Your task to perform on an android device: toggle pop-ups in chrome Image 0: 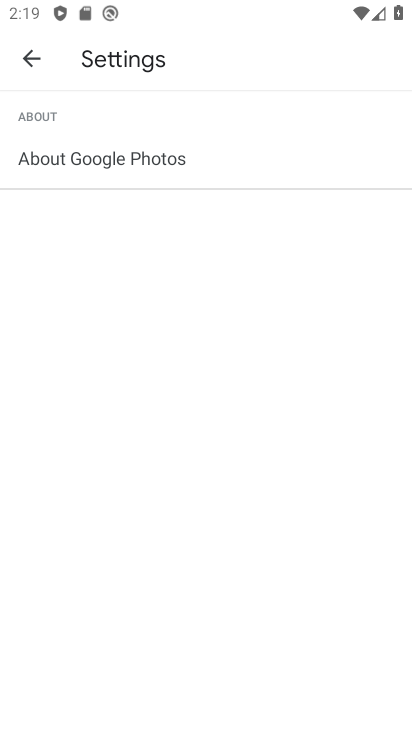
Step 0: press home button
Your task to perform on an android device: toggle pop-ups in chrome Image 1: 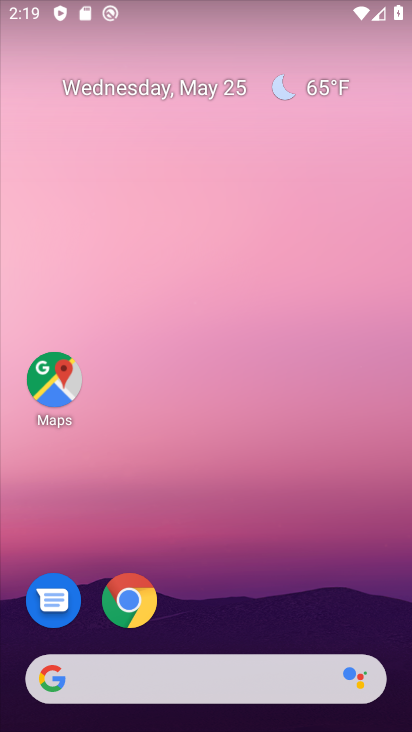
Step 1: click (296, 551)
Your task to perform on an android device: toggle pop-ups in chrome Image 2: 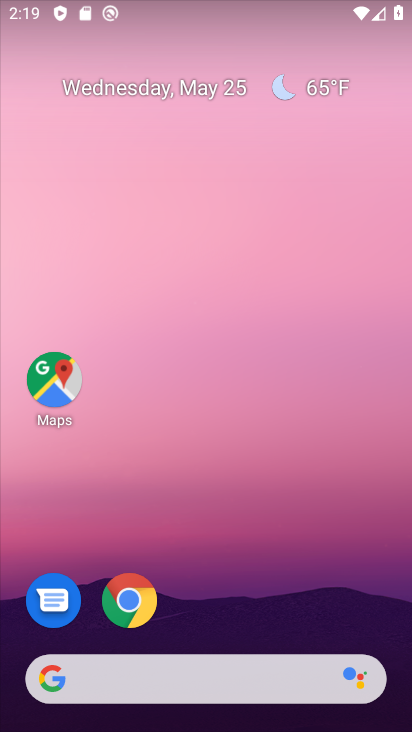
Step 2: click (136, 605)
Your task to perform on an android device: toggle pop-ups in chrome Image 3: 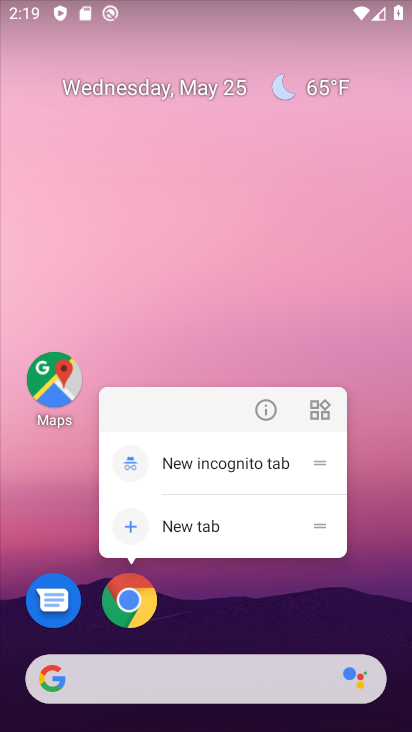
Step 3: click (136, 605)
Your task to perform on an android device: toggle pop-ups in chrome Image 4: 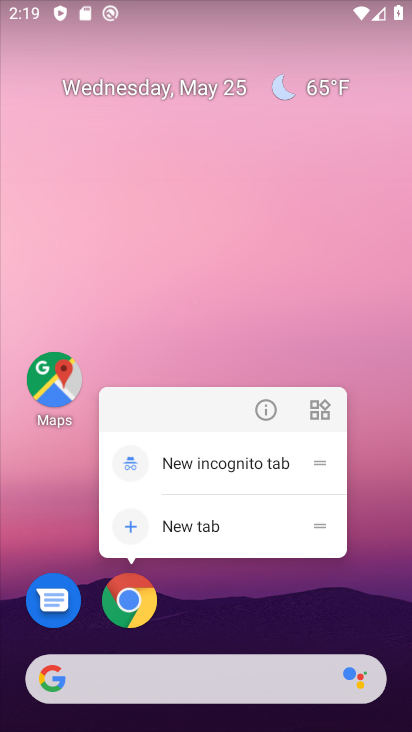
Step 4: click (224, 615)
Your task to perform on an android device: toggle pop-ups in chrome Image 5: 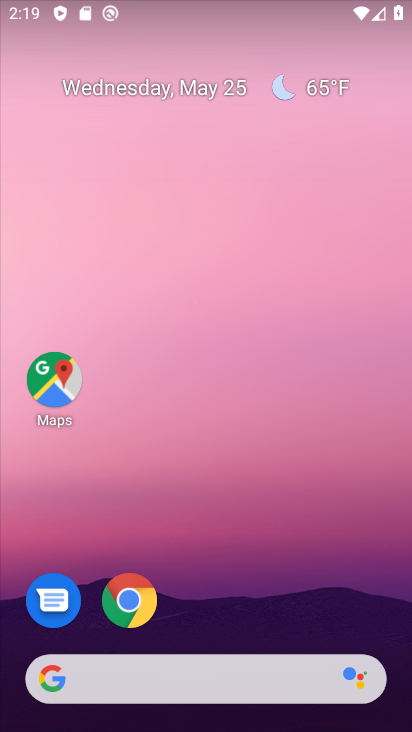
Step 5: drag from (230, 613) to (165, 133)
Your task to perform on an android device: toggle pop-ups in chrome Image 6: 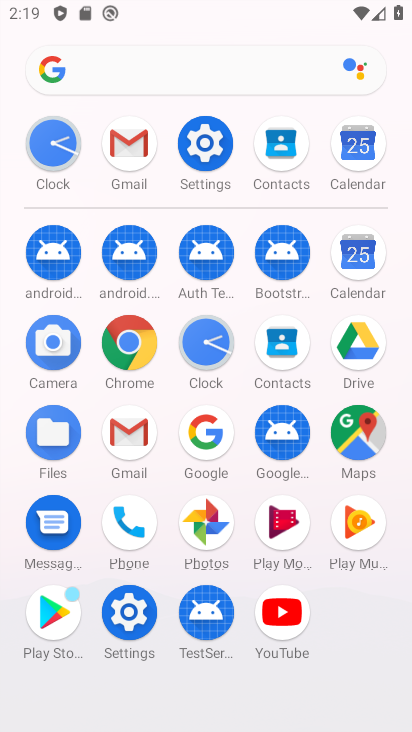
Step 6: click (133, 344)
Your task to perform on an android device: toggle pop-ups in chrome Image 7: 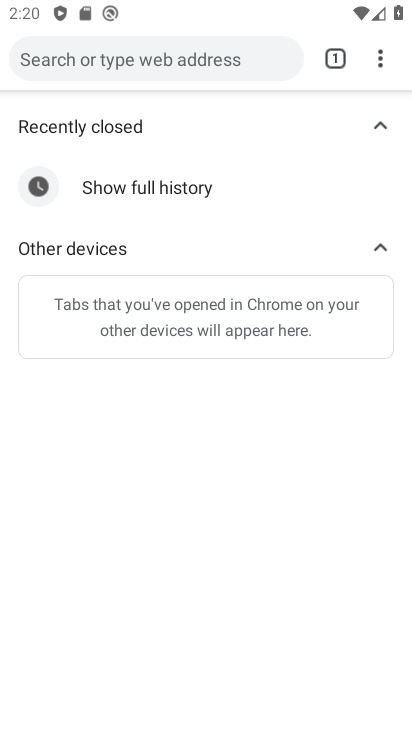
Step 7: click (384, 64)
Your task to perform on an android device: toggle pop-ups in chrome Image 8: 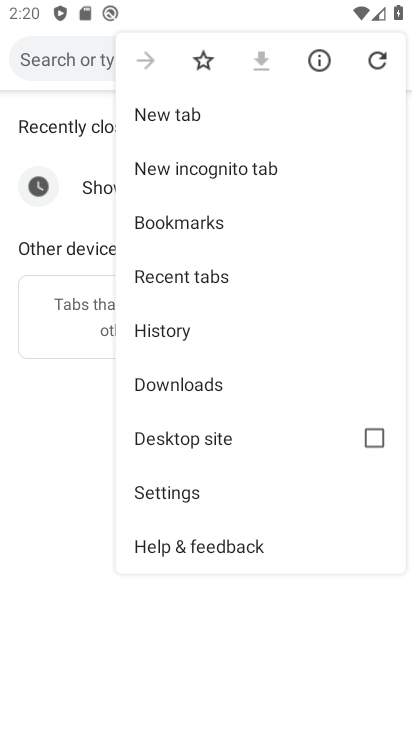
Step 8: click (156, 489)
Your task to perform on an android device: toggle pop-ups in chrome Image 9: 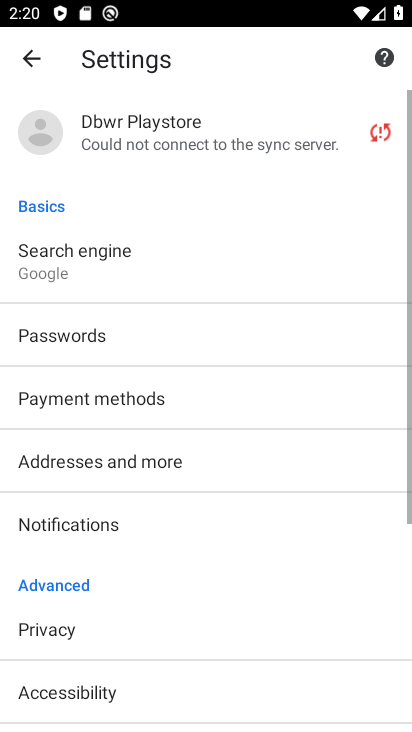
Step 9: drag from (200, 593) to (264, 167)
Your task to perform on an android device: toggle pop-ups in chrome Image 10: 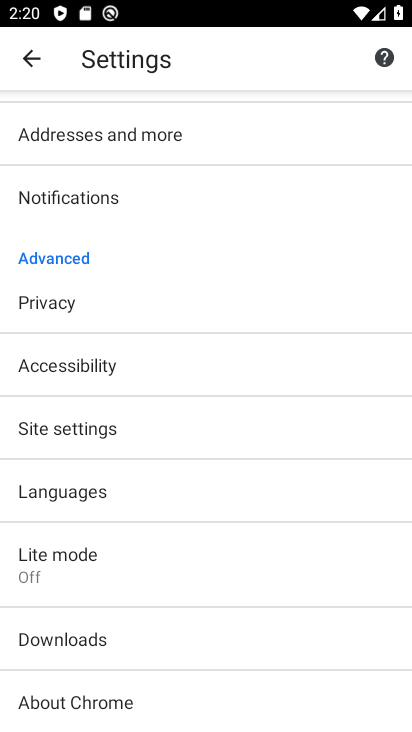
Step 10: click (85, 425)
Your task to perform on an android device: toggle pop-ups in chrome Image 11: 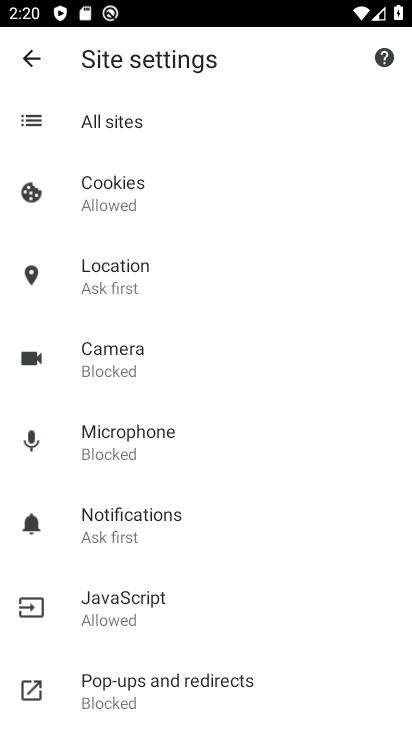
Step 11: click (116, 676)
Your task to perform on an android device: toggle pop-ups in chrome Image 12: 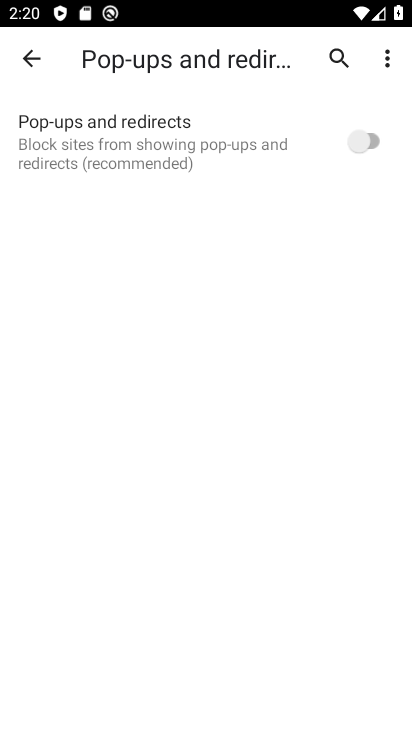
Step 12: click (333, 150)
Your task to perform on an android device: toggle pop-ups in chrome Image 13: 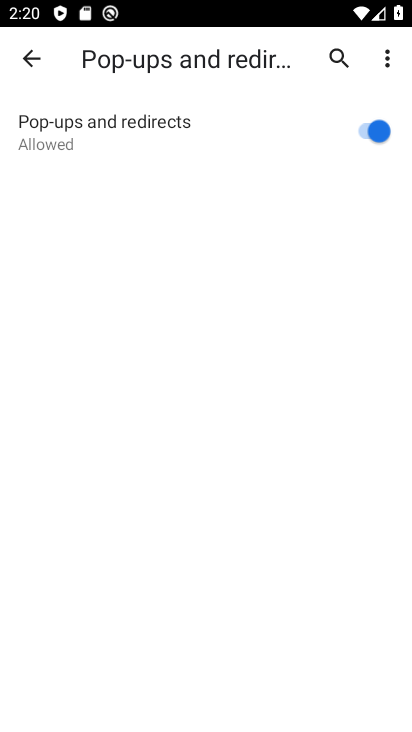
Step 13: task complete